Your task to perform on an android device: make emails show in primary in the gmail app Image 0: 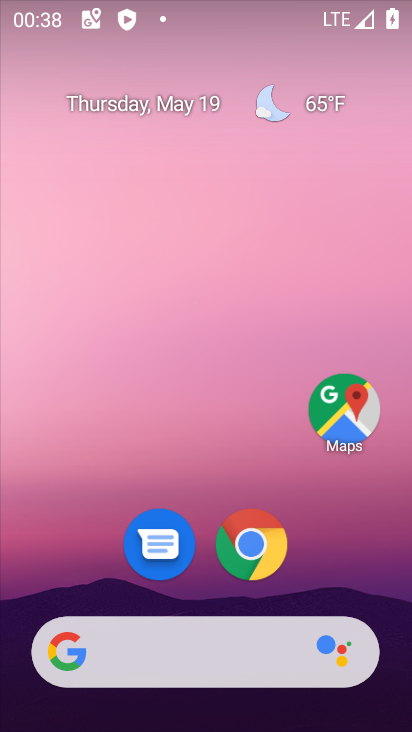
Step 0: drag from (367, 566) to (340, 171)
Your task to perform on an android device: make emails show in primary in the gmail app Image 1: 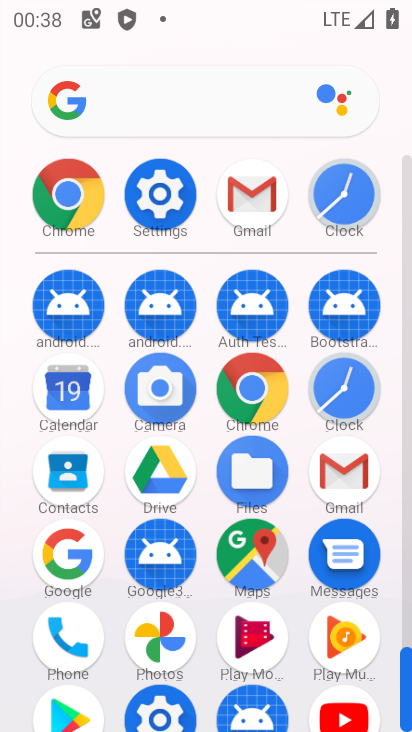
Step 1: click (345, 479)
Your task to perform on an android device: make emails show in primary in the gmail app Image 2: 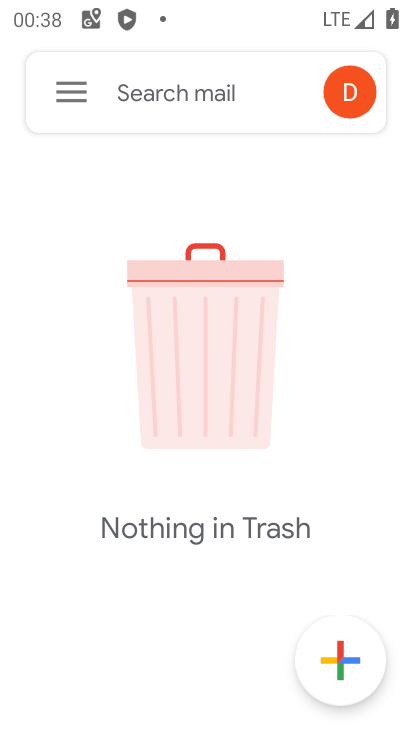
Step 2: click (67, 97)
Your task to perform on an android device: make emails show in primary in the gmail app Image 3: 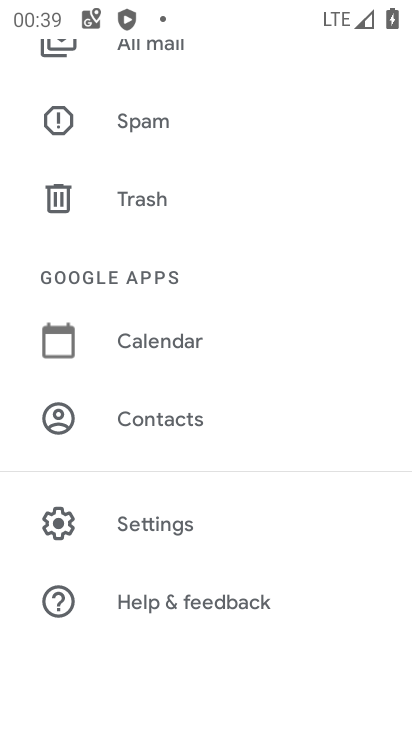
Step 3: drag from (299, 335) to (296, 508)
Your task to perform on an android device: make emails show in primary in the gmail app Image 4: 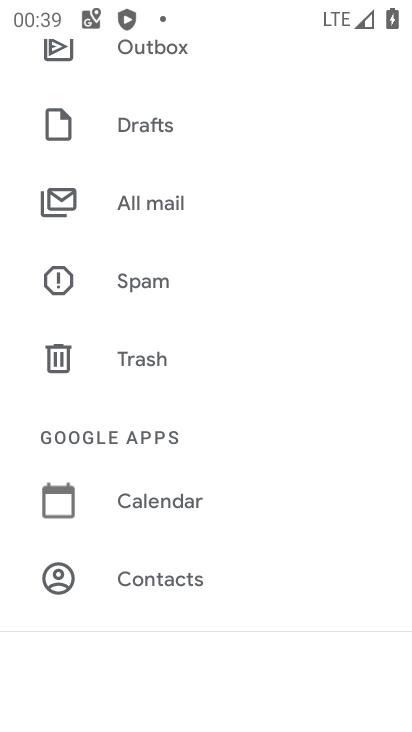
Step 4: drag from (298, 272) to (281, 443)
Your task to perform on an android device: make emails show in primary in the gmail app Image 5: 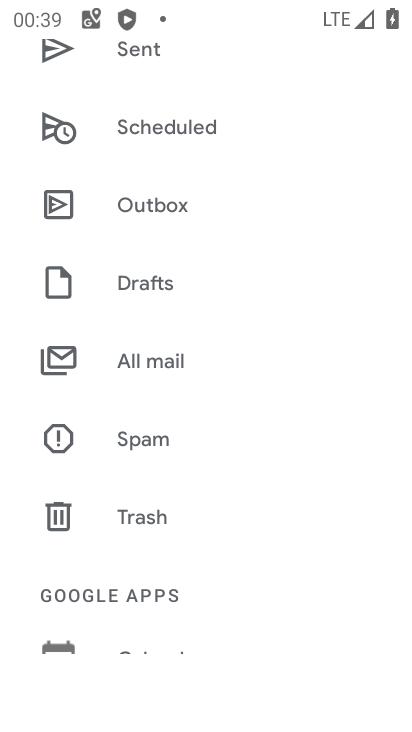
Step 5: drag from (294, 243) to (263, 456)
Your task to perform on an android device: make emails show in primary in the gmail app Image 6: 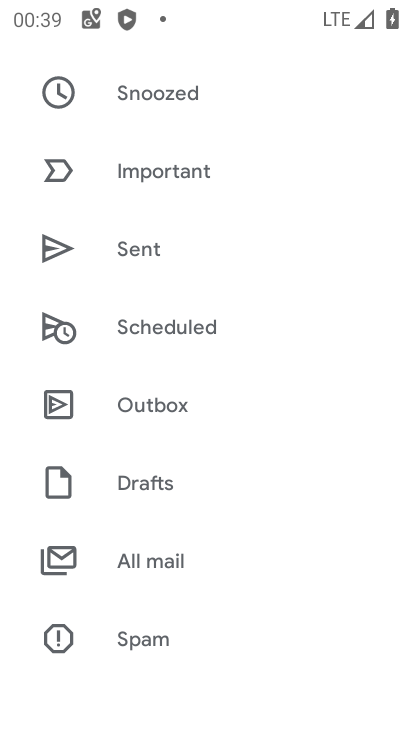
Step 6: drag from (272, 231) to (274, 408)
Your task to perform on an android device: make emails show in primary in the gmail app Image 7: 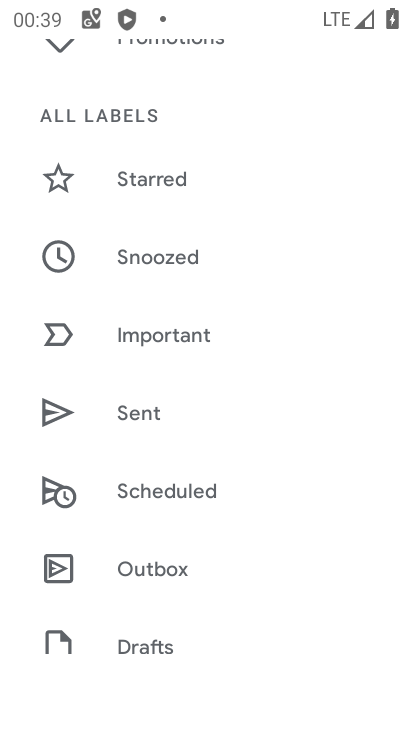
Step 7: drag from (276, 184) to (258, 377)
Your task to perform on an android device: make emails show in primary in the gmail app Image 8: 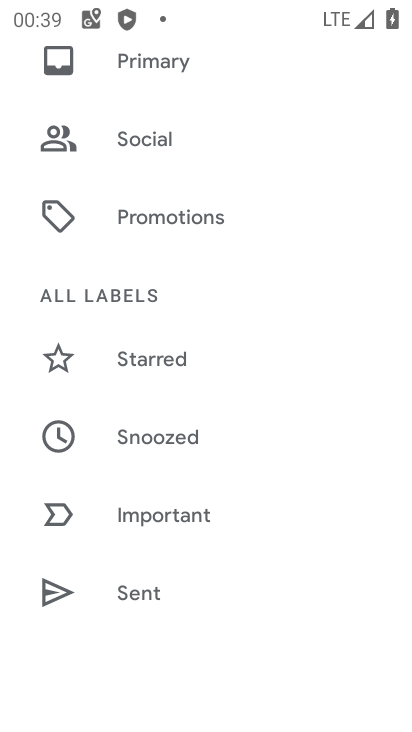
Step 8: drag from (285, 191) to (274, 372)
Your task to perform on an android device: make emails show in primary in the gmail app Image 9: 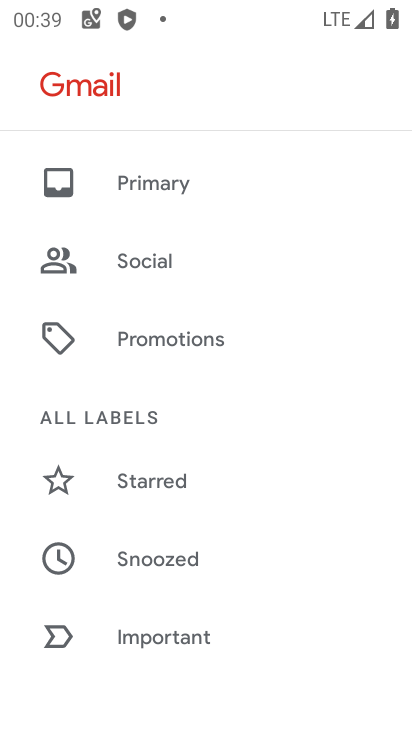
Step 9: drag from (274, 195) to (274, 367)
Your task to perform on an android device: make emails show in primary in the gmail app Image 10: 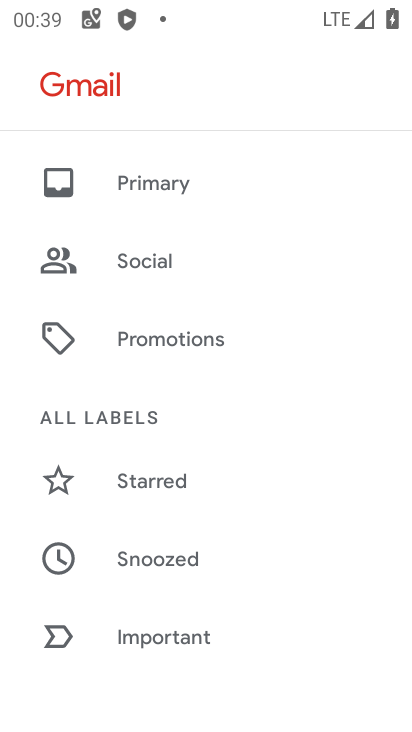
Step 10: drag from (286, 525) to (283, 376)
Your task to perform on an android device: make emails show in primary in the gmail app Image 11: 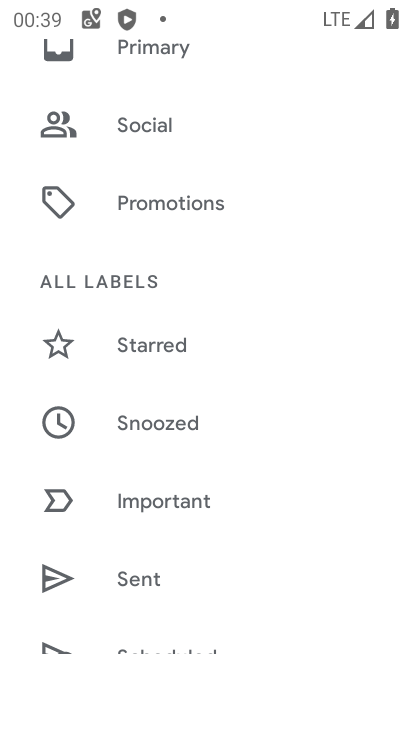
Step 11: drag from (276, 515) to (281, 311)
Your task to perform on an android device: make emails show in primary in the gmail app Image 12: 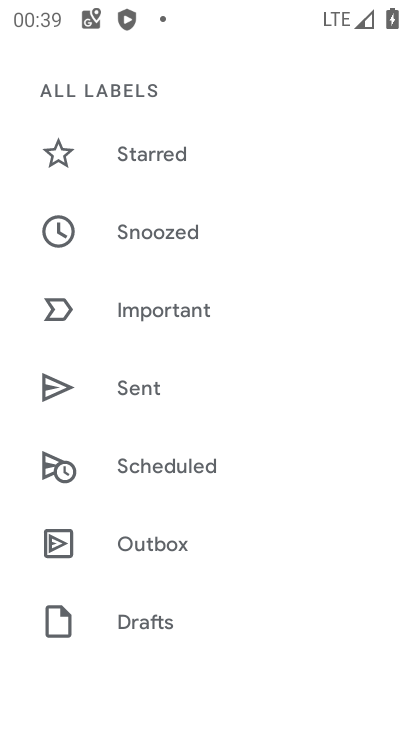
Step 12: drag from (288, 569) to (293, 260)
Your task to perform on an android device: make emails show in primary in the gmail app Image 13: 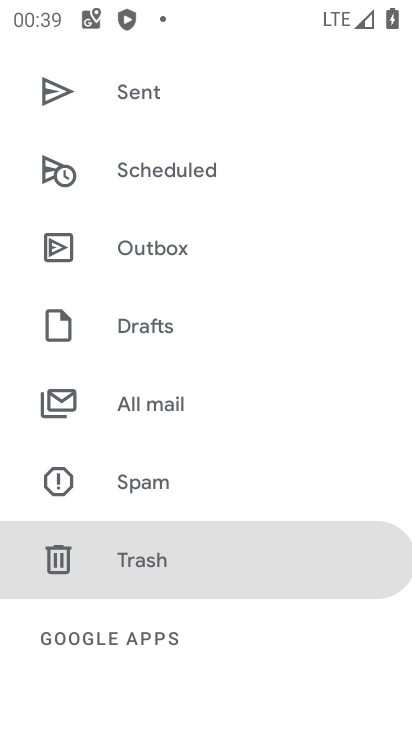
Step 13: drag from (292, 220) to (266, 577)
Your task to perform on an android device: make emails show in primary in the gmail app Image 14: 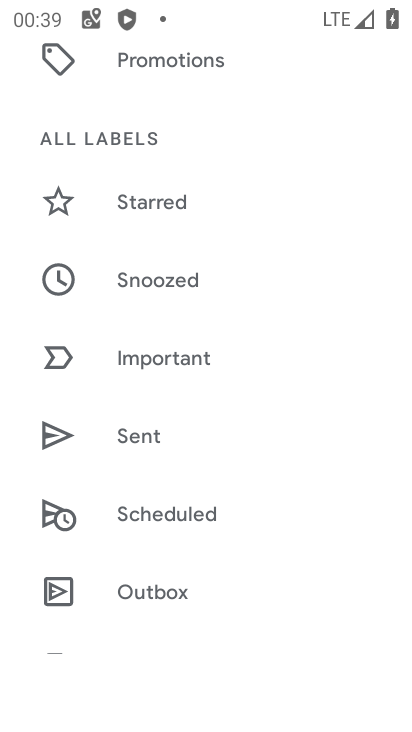
Step 14: drag from (259, 257) to (234, 561)
Your task to perform on an android device: make emails show in primary in the gmail app Image 15: 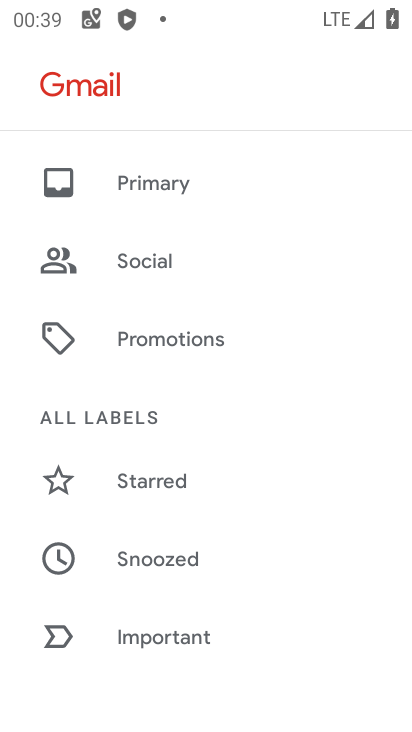
Step 15: drag from (271, 226) to (272, 547)
Your task to perform on an android device: make emails show in primary in the gmail app Image 16: 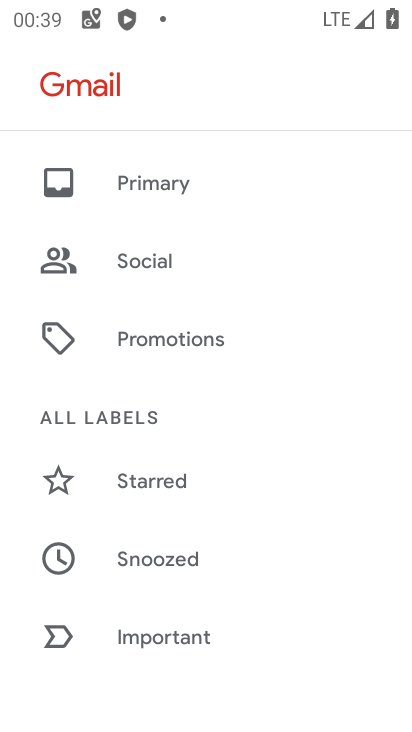
Step 16: click (161, 198)
Your task to perform on an android device: make emails show in primary in the gmail app Image 17: 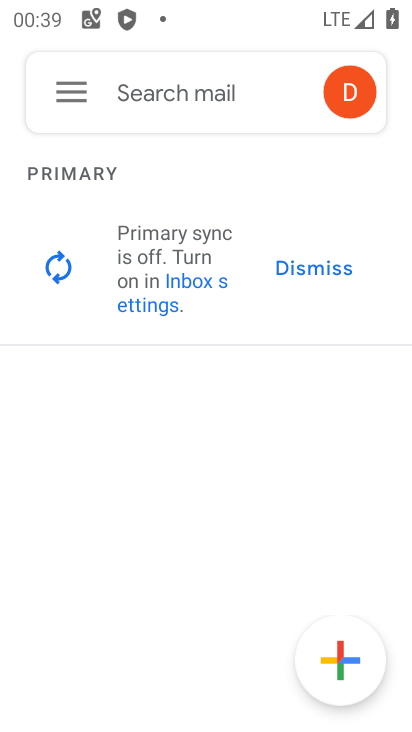
Step 17: task complete